Your task to perform on an android device: Open network settings Image 0: 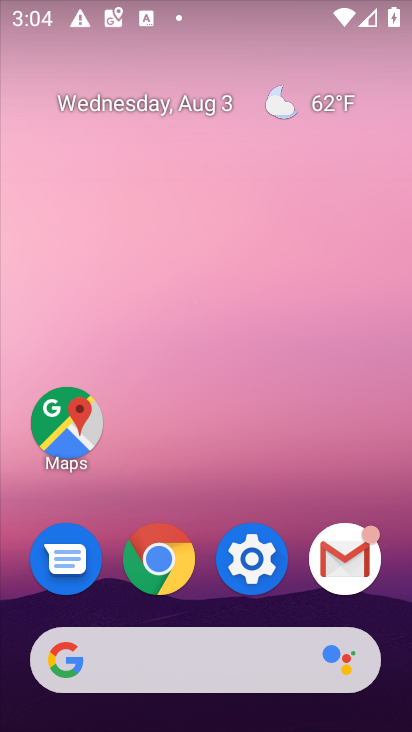
Step 0: press home button
Your task to perform on an android device: Open network settings Image 1: 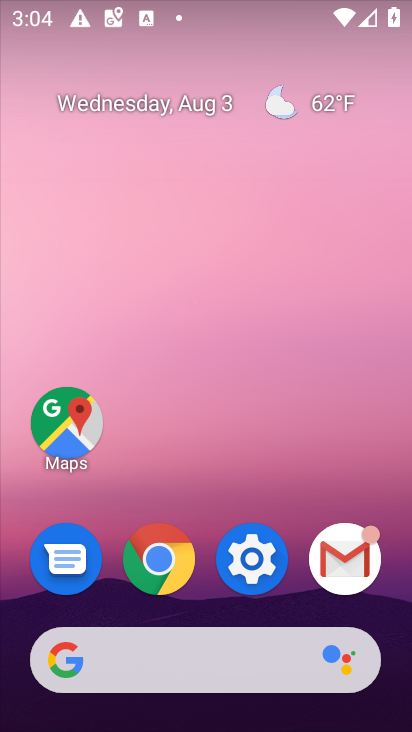
Step 1: click (266, 553)
Your task to perform on an android device: Open network settings Image 2: 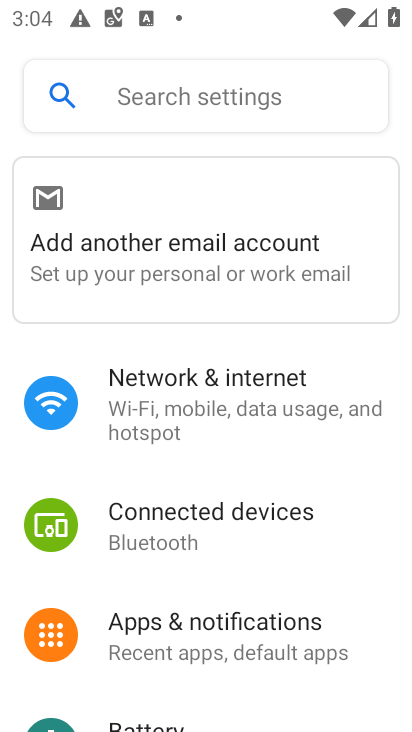
Step 2: click (199, 427)
Your task to perform on an android device: Open network settings Image 3: 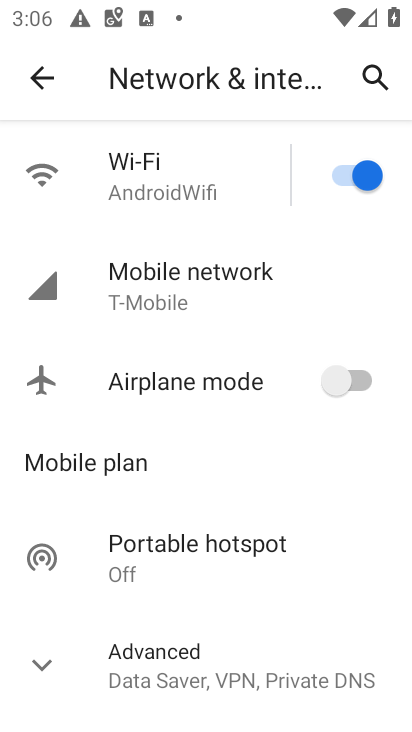
Step 3: task complete